Your task to perform on an android device: Open Google Maps and go to "Timeline" Image 0: 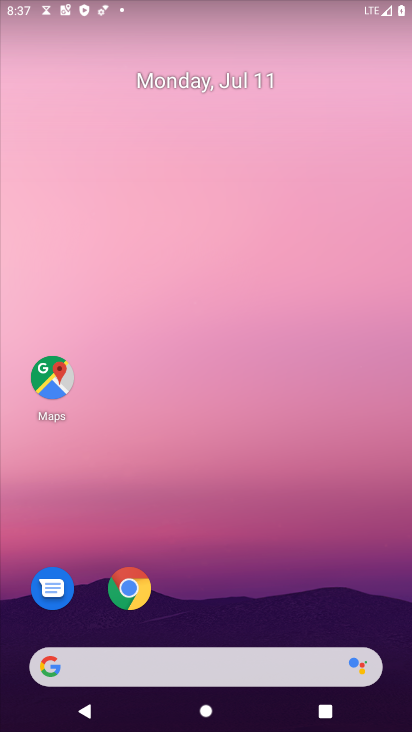
Step 0: drag from (256, 633) to (222, 6)
Your task to perform on an android device: Open Google Maps and go to "Timeline" Image 1: 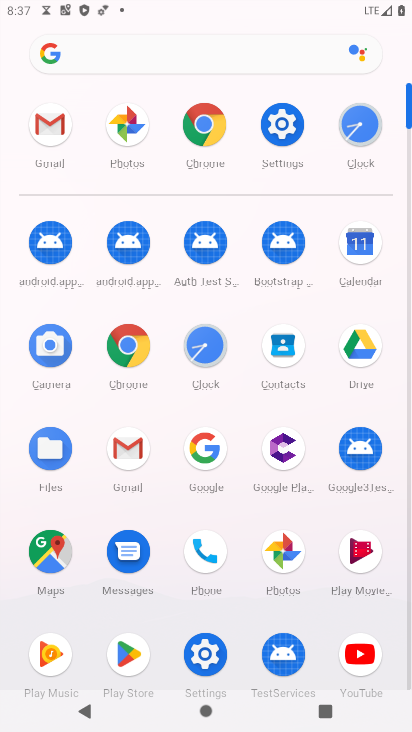
Step 1: click (49, 547)
Your task to perform on an android device: Open Google Maps and go to "Timeline" Image 2: 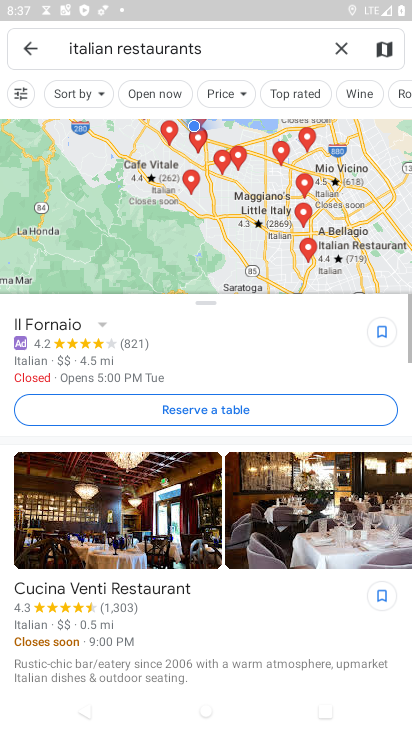
Step 2: press back button
Your task to perform on an android device: Open Google Maps and go to "Timeline" Image 3: 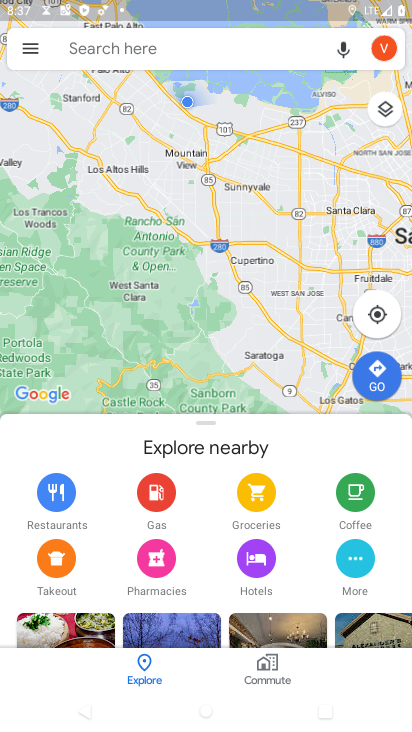
Step 3: click (27, 50)
Your task to perform on an android device: Open Google Maps and go to "Timeline" Image 4: 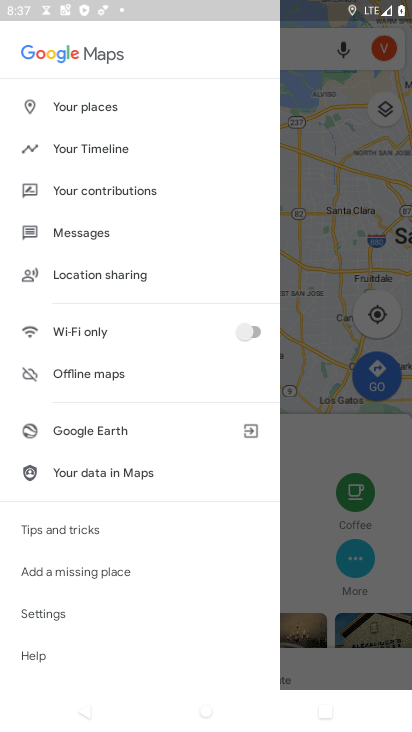
Step 4: click (91, 147)
Your task to perform on an android device: Open Google Maps and go to "Timeline" Image 5: 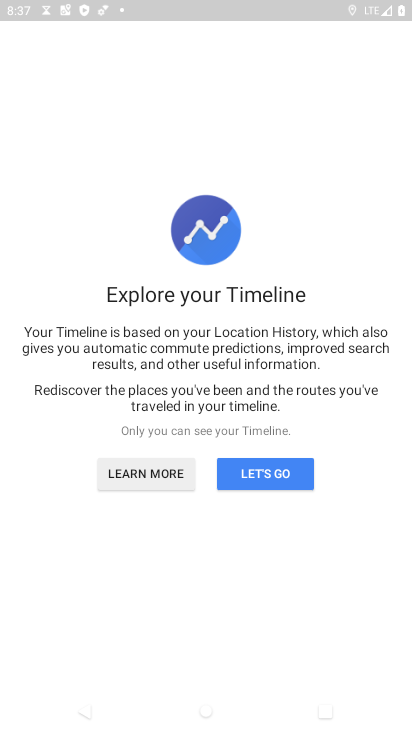
Step 5: click (260, 473)
Your task to perform on an android device: Open Google Maps and go to "Timeline" Image 6: 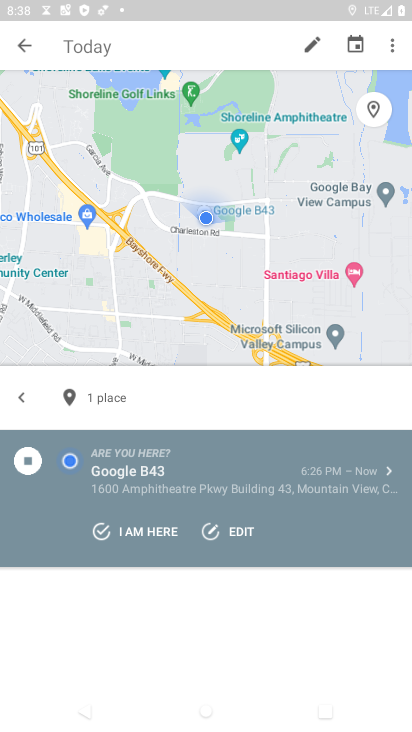
Step 6: task complete